Your task to perform on an android device: uninstall "Google Chat" Image 0: 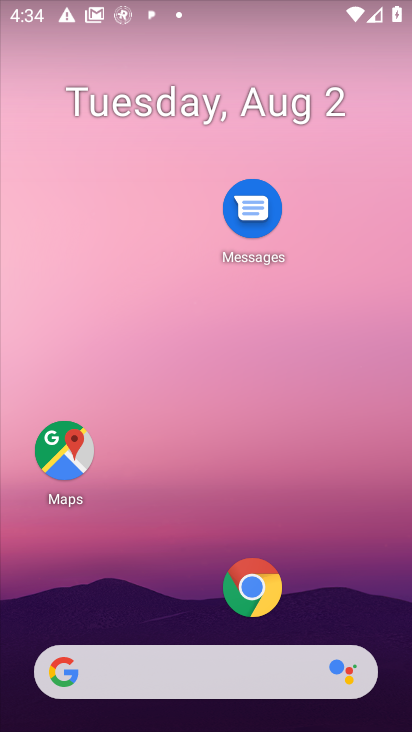
Step 0: drag from (193, 576) to (182, 133)
Your task to perform on an android device: uninstall "Google Chat" Image 1: 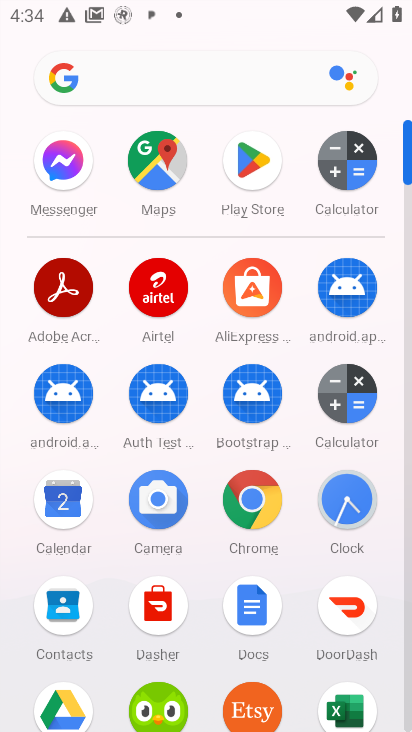
Step 1: click (233, 153)
Your task to perform on an android device: uninstall "Google Chat" Image 2: 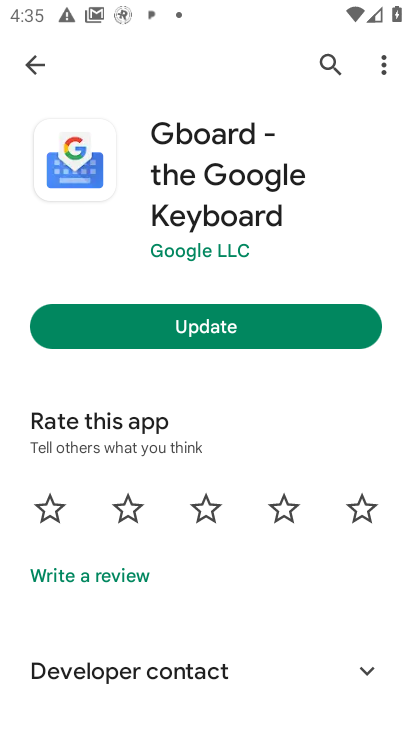
Step 2: click (322, 70)
Your task to perform on an android device: uninstall "Google Chat" Image 3: 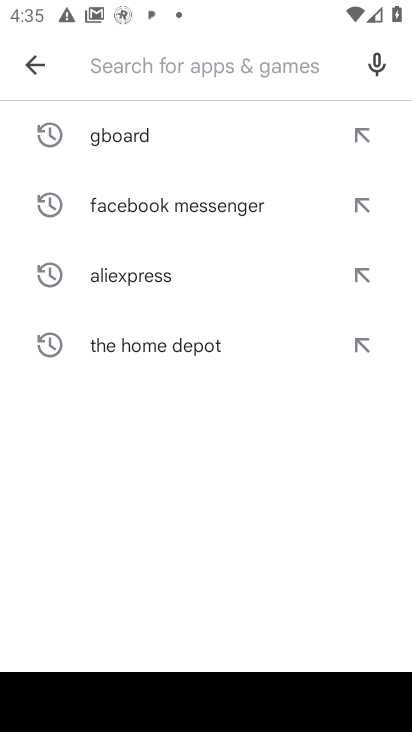
Step 3: type "Google Chat"
Your task to perform on an android device: uninstall "Google Chat" Image 4: 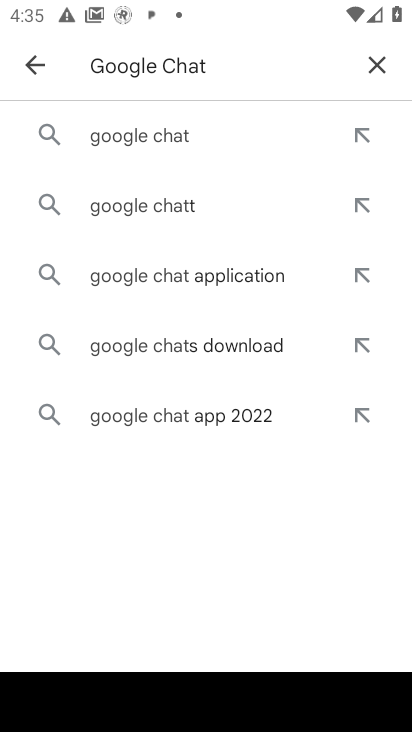
Step 4: click (189, 152)
Your task to perform on an android device: uninstall "Google Chat" Image 5: 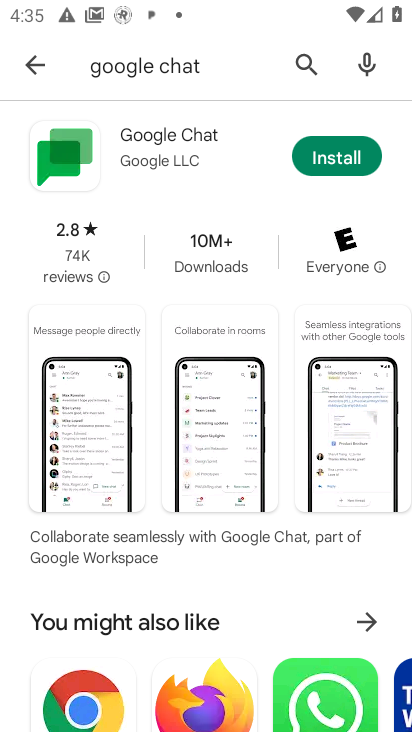
Step 5: task complete